Your task to perform on an android device: Open network settings Image 0: 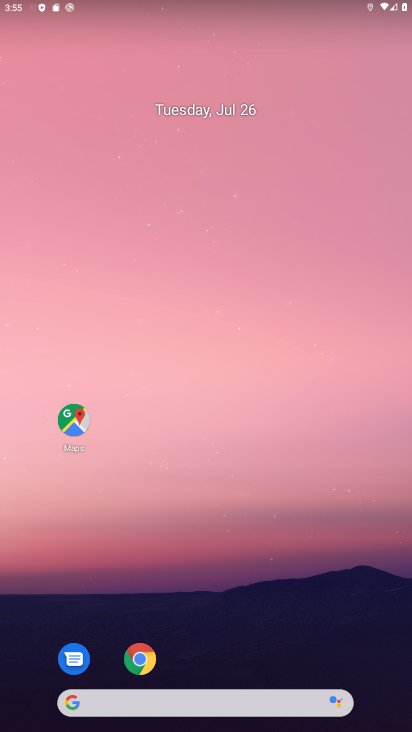
Step 0: press home button
Your task to perform on an android device: Open network settings Image 1: 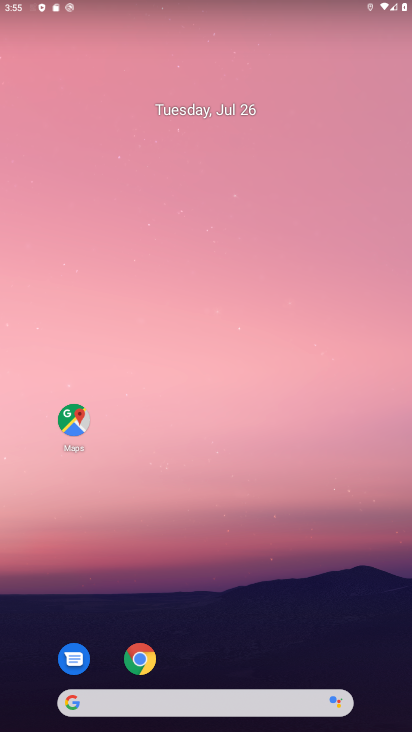
Step 1: drag from (201, 649) to (150, 26)
Your task to perform on an android device: Open network settings Image 2: 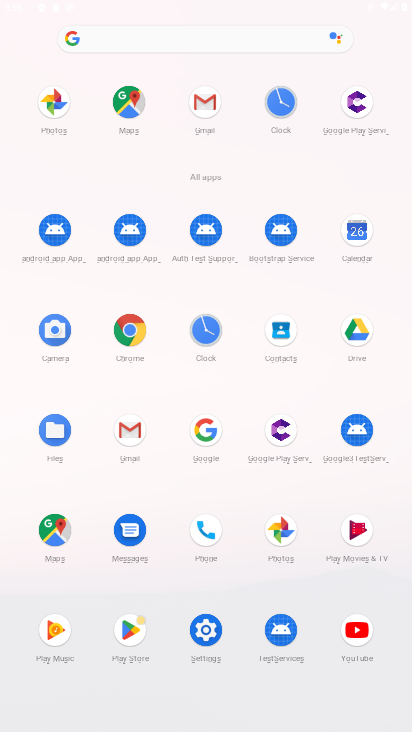
Step 2: click (212, 631)
Your task to perform on an android device: Open network settings Image 3: 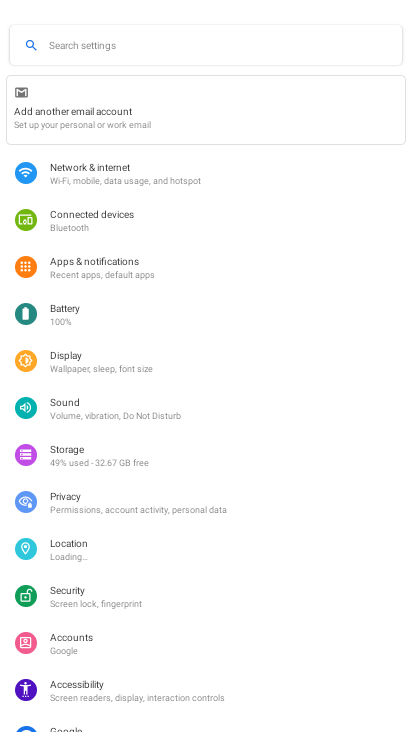
Step 3: click (88, 174)
Your task to perform on an android device: Open network settings Image 4: 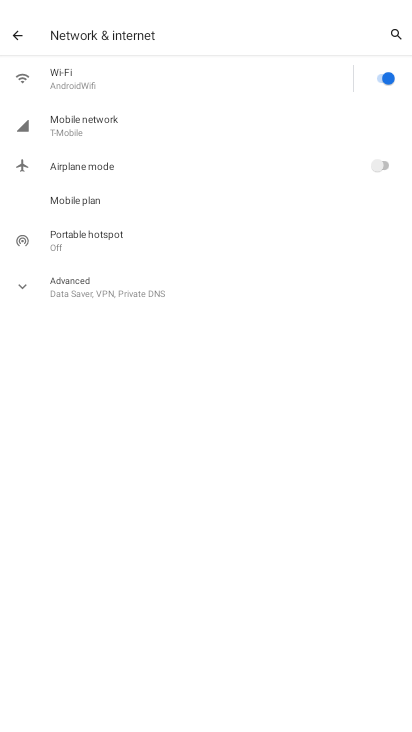
Step 4: task complete